Your task to perform on an android device: Open wifi settings Image 0: 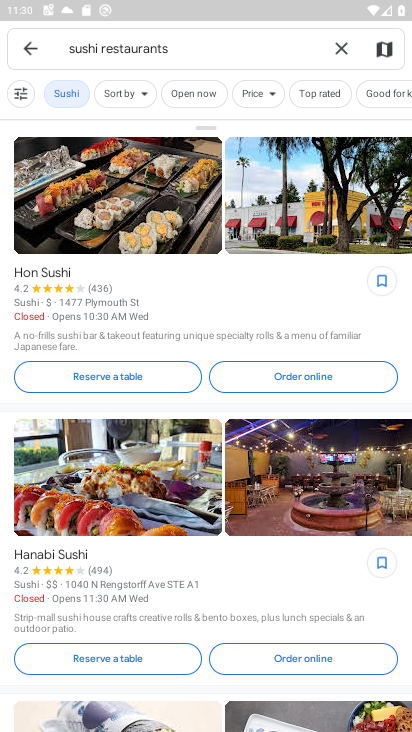
Step 0: press home button
Your task to perform on an android device: Open wifi settings Image 1: 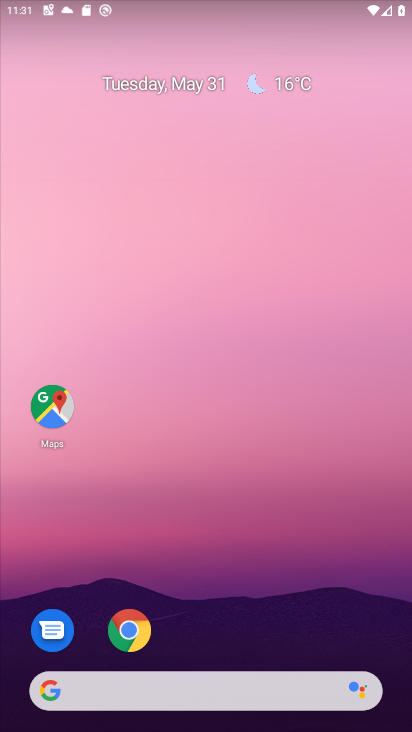
Step 1: drag from (259, 597) to (282, 41)
Your task to perform on an android device: Open wifi settings Image 2: 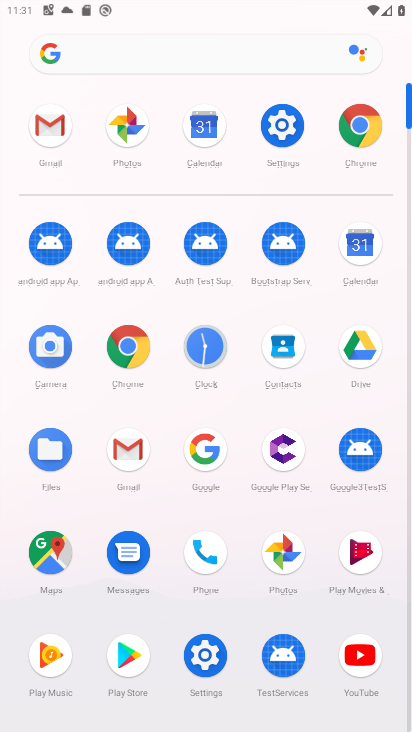
Step 2: click (281, 124)
Your task to perform on an android device: Open wifi settings Image 3: 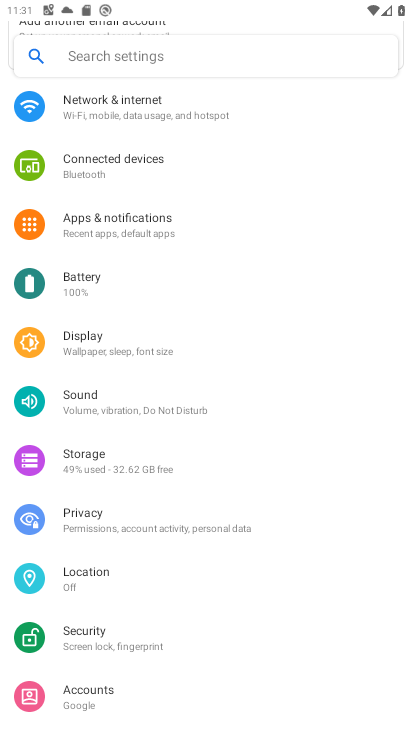
Step 3: drag from (184, 550) to (238, 657)
Your task to perform on an android device: Open wifi settings Image 4: 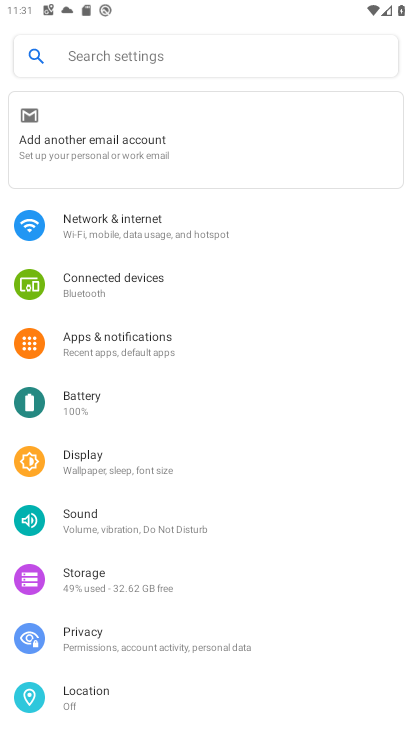
Step 4: click (157, 224)
Your task to perform on an android device: Open wifi settings Image 5: 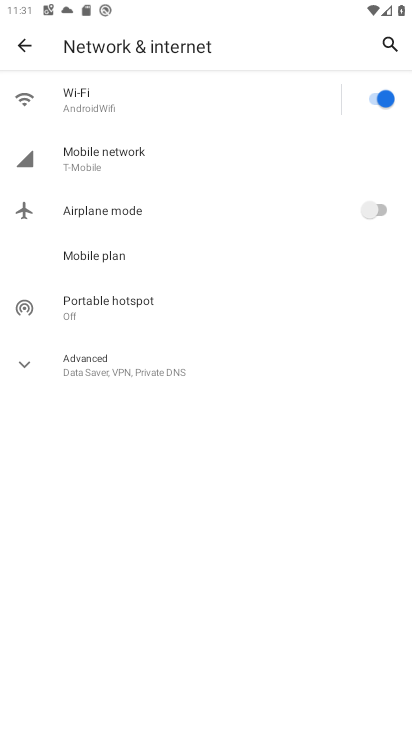
Step 5: click (159, 89)
Your task to perform on an android device: Open wifi settings Image 6: 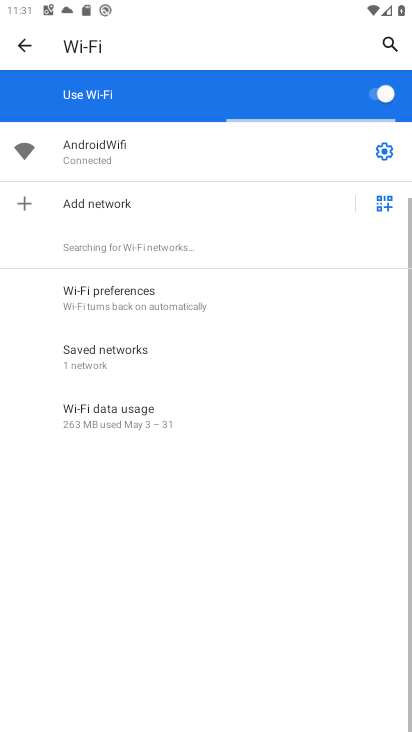
Step 6: click (386, 153)
Your task to perform on an android device: Open wifi settings Image 7: 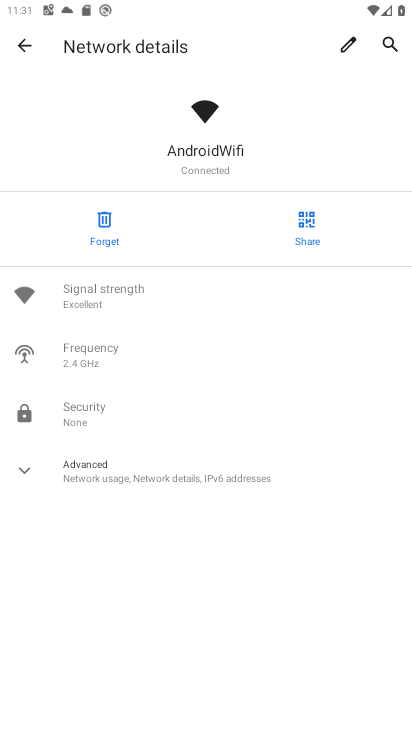
Step 7: task complete